Your task to perform on an android device: Turn on the flashlight Image 0: 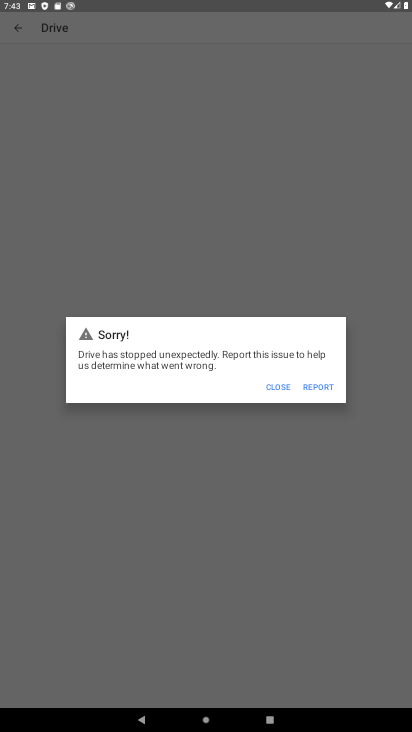
Step 0: press home button
Your task to perform on an android device: Turn on the flashlight Image 1: 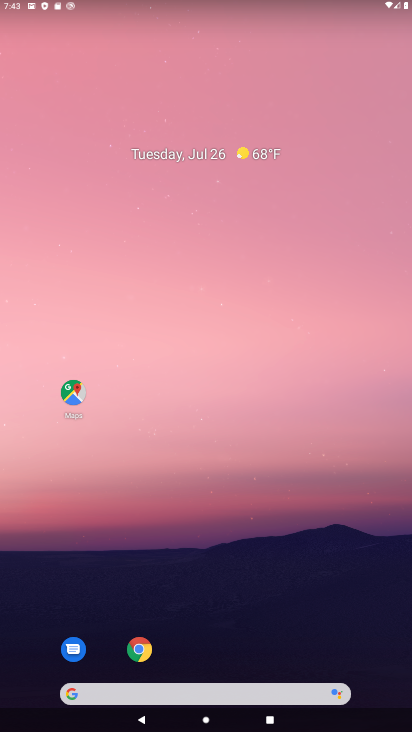
Step 1: task complete